Your task to perform on an android device: When is my next meeting? Image 0: 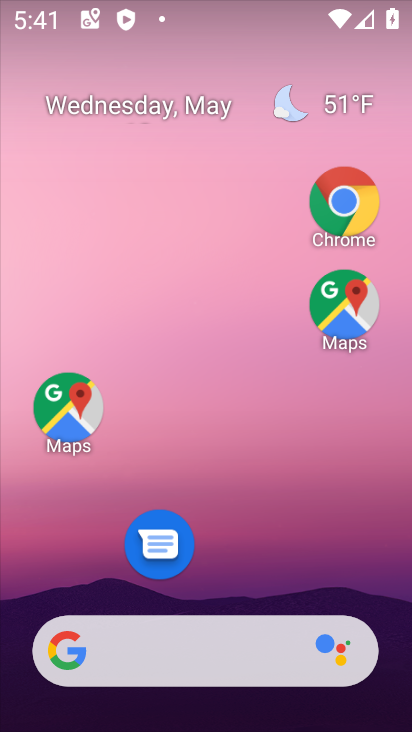
Step 0: click (185, 659)
Your task to perform on an android device: When is my next meeting? Image 1: 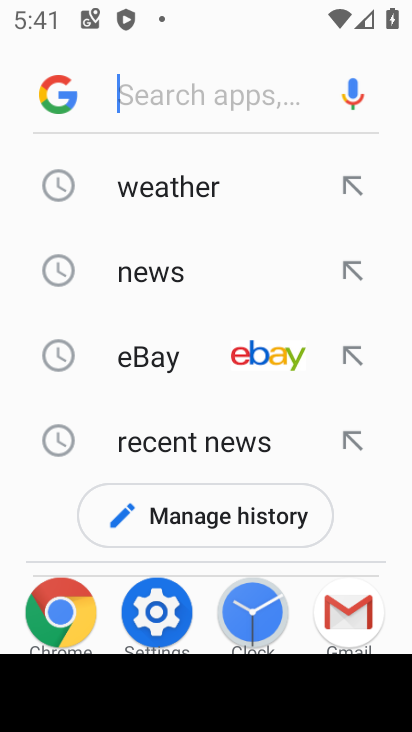
Step 1: click (179, 450)
Your task to perform on an android device: When is my next meeting? Image 2: 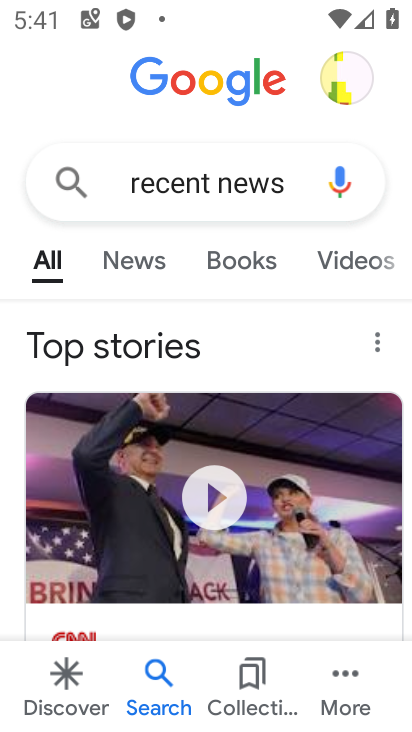
Step 2: task complete